Your task to perform on an android device: Open Google Chrome and click the shortcut for Amazon.com Image 0: 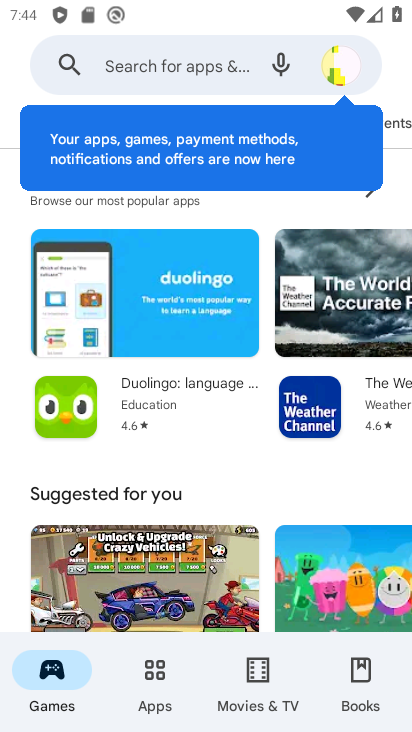
Step 0: press home button
Your task to perform on an android device: Open Google Chrome and click the shortcut for Amazon.com Image 1: 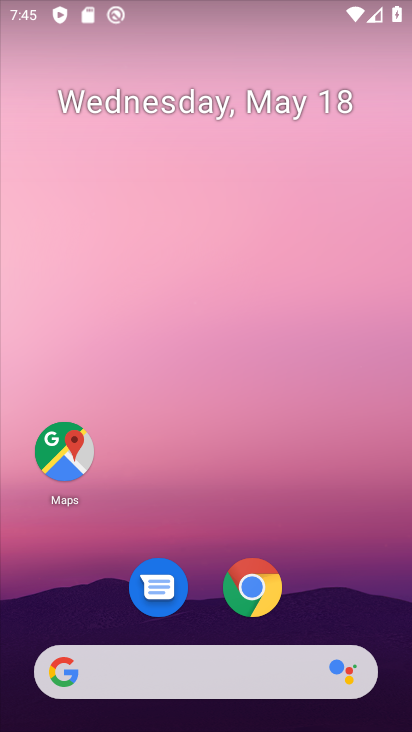
Step 1: click (274, 608)
Your task to perform on an android device: Open Google Chrome and click the shortcut for Amazon.com Image 2: 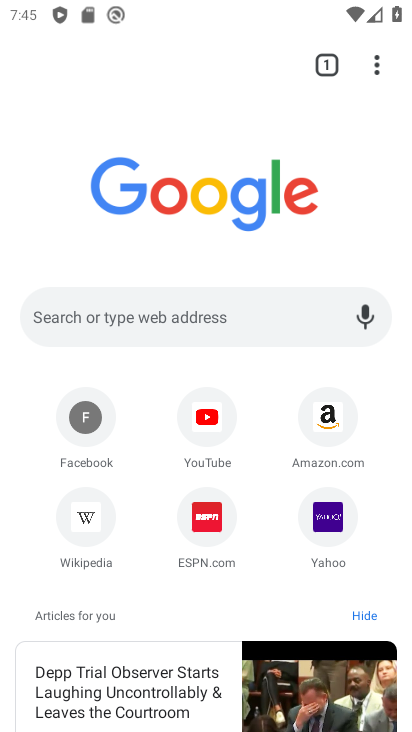
Step 2: click (327, 420)
Your task to perform on an android device: Open Google Chrome and click the shortcut for Amazon.com Image 3: 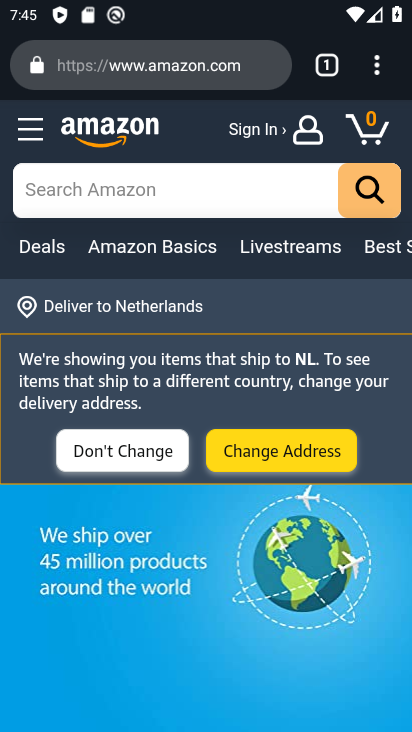
Step 3: task complete